Your task to perform on an android device: open app "Google Play Games" Image 0: 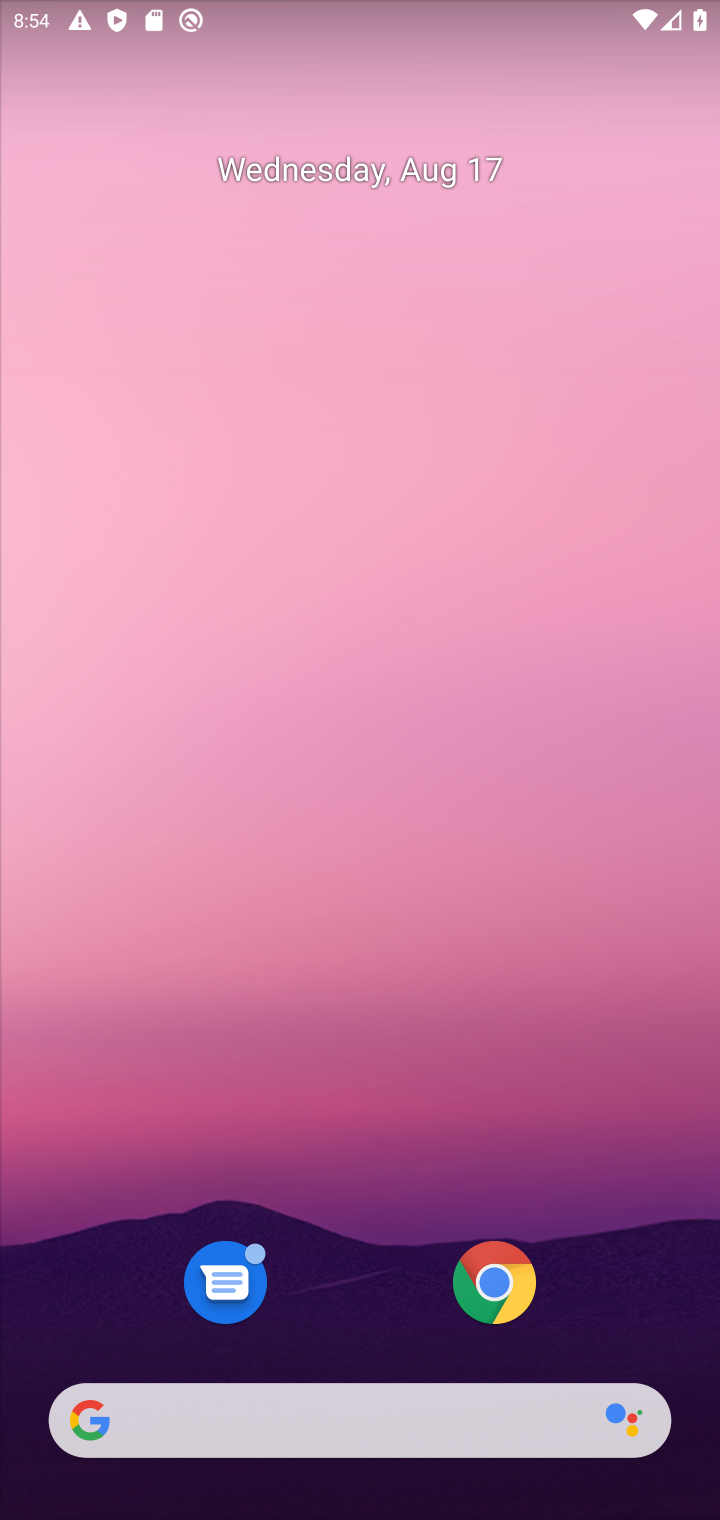
Step 0: drag from (257, 1088) to (586, 491)
Your task to perform on an android device: open app "Google Play Games" Image 1: 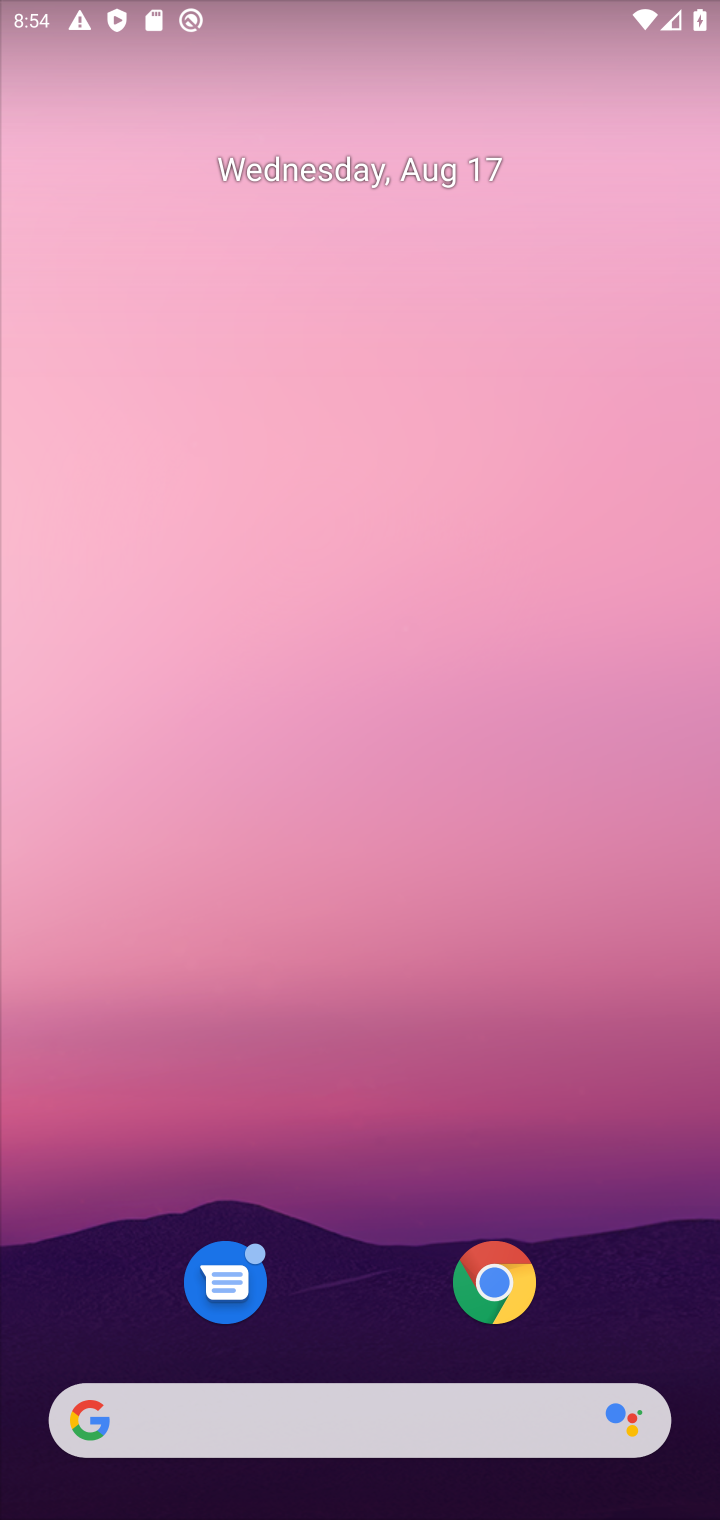
Step 1: drag from (394, 1356) to (218, 124)
Your task to perform on an android device: open app "Google Play Games" Image 2: 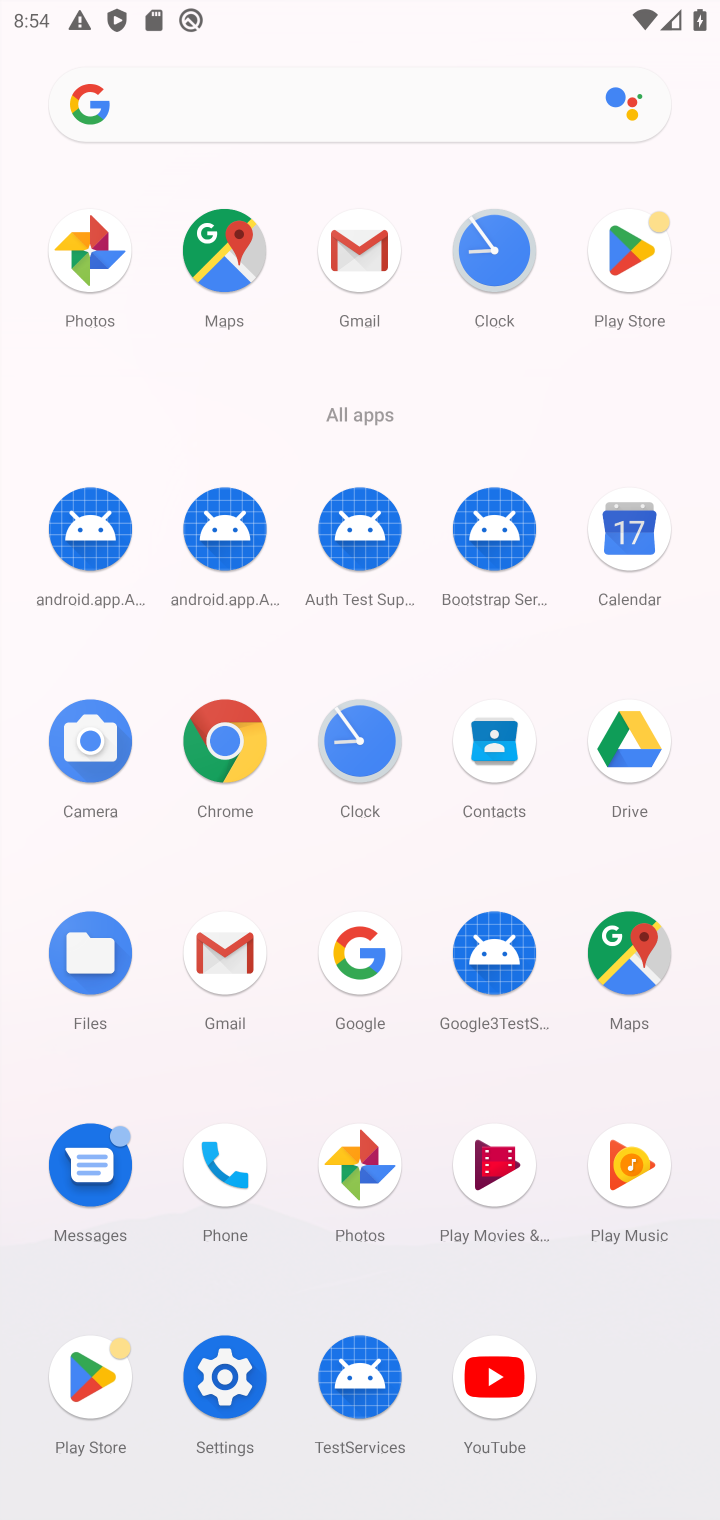
Step 2: click (68, 1403)
Your task to perform on an android device: open app "Google Play Games" Image 3: 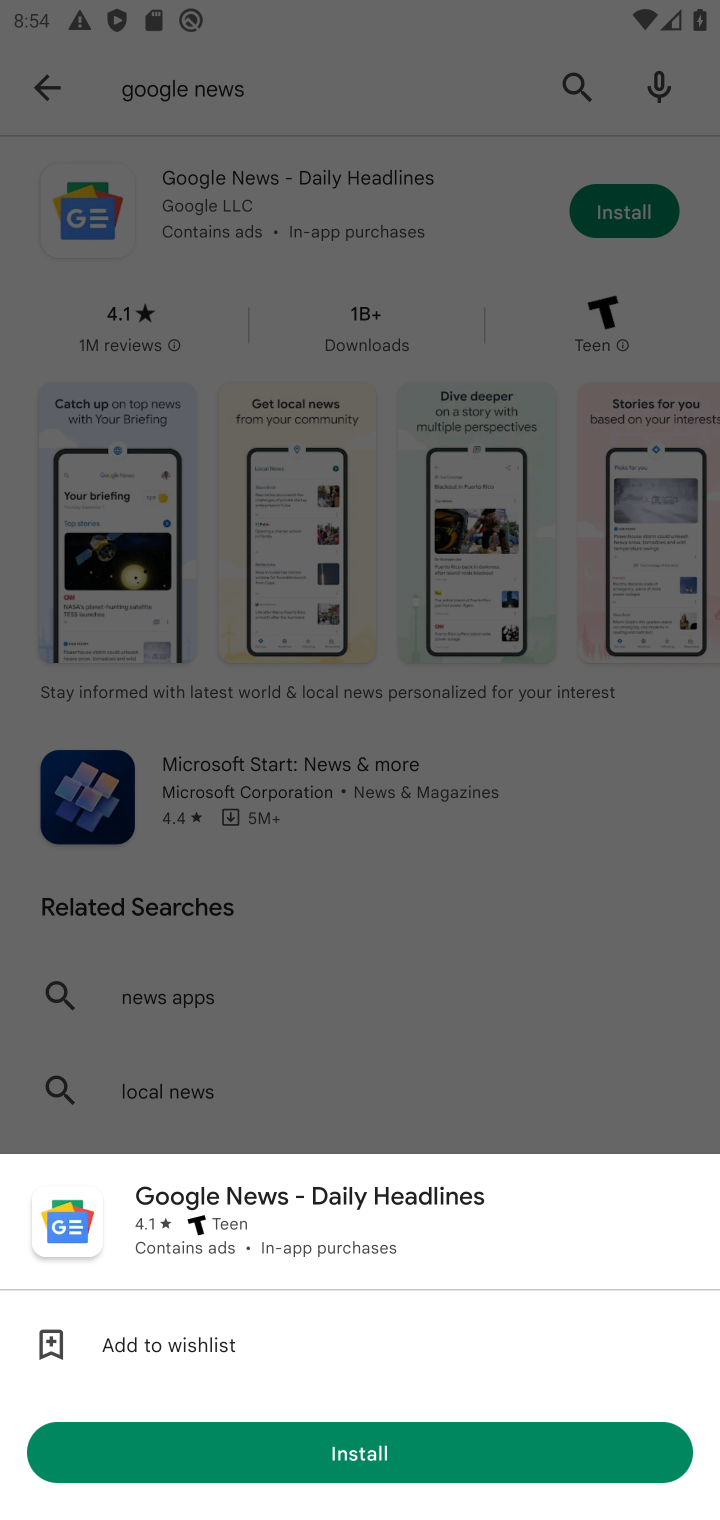
Step 3: click (408, 923)
Your task to perform on an android device: open app "Google Play Games" Image 4: 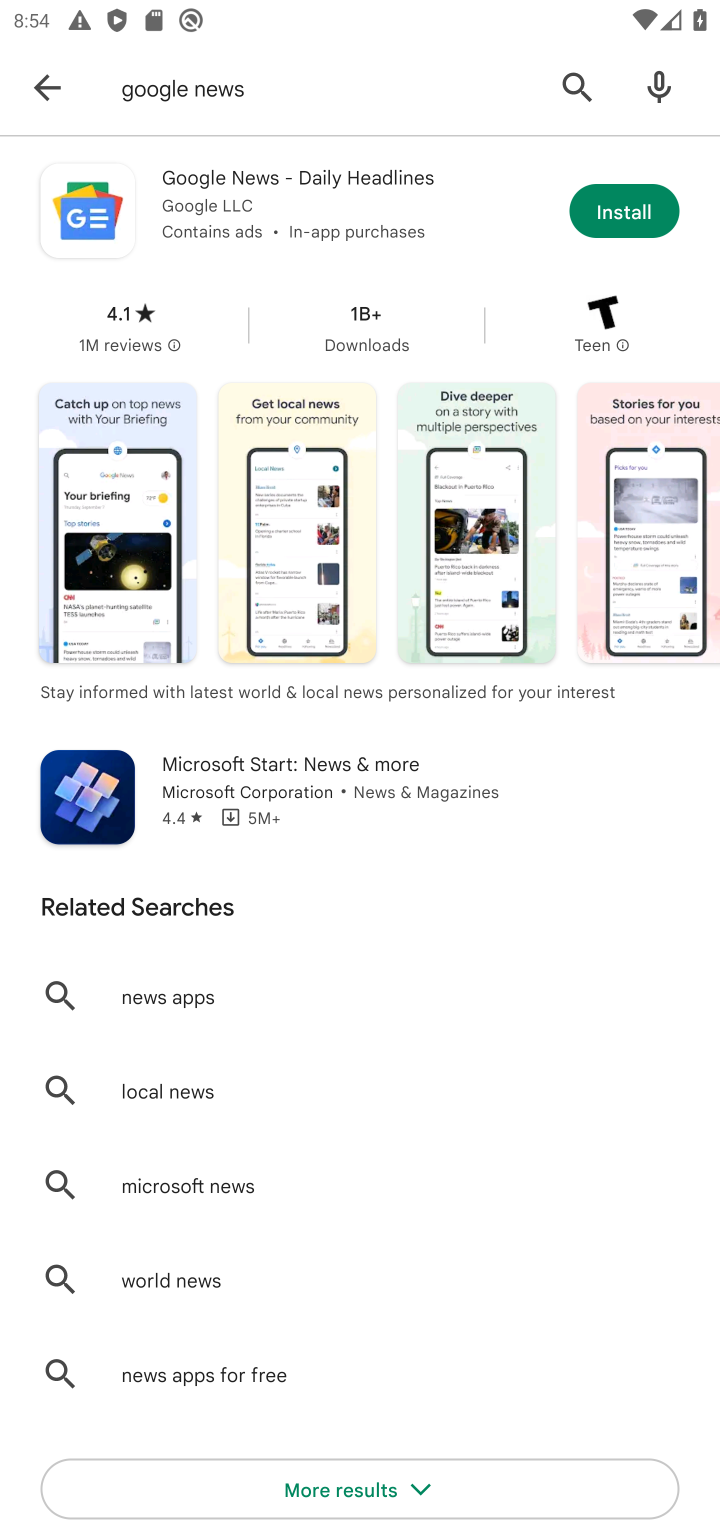
Step 4: click (49, 102)
Your task to perform on an android device: open app "Google Play Games" Image 5: 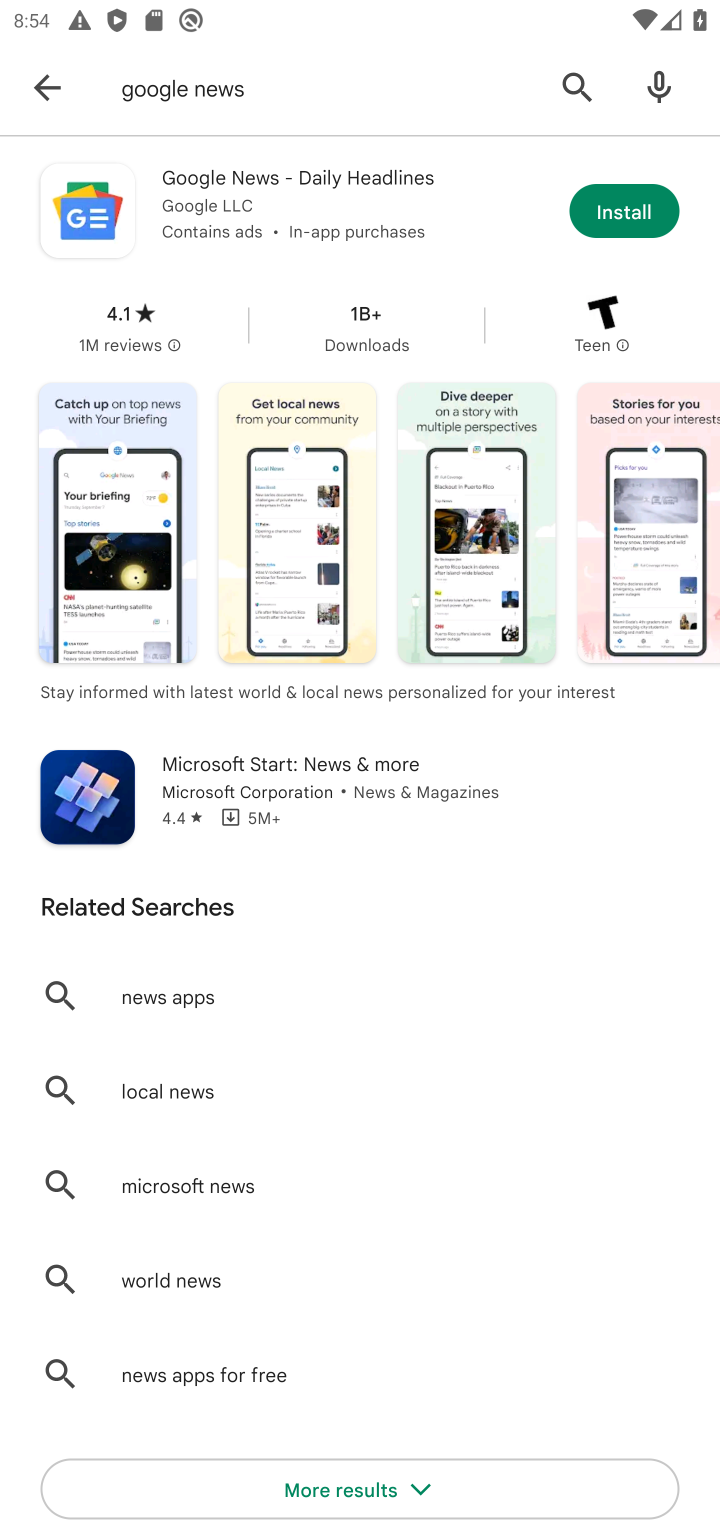
Step 5: click (58, 92)
Your task to perform on an android device: open app "Google Play Games" Image 6: 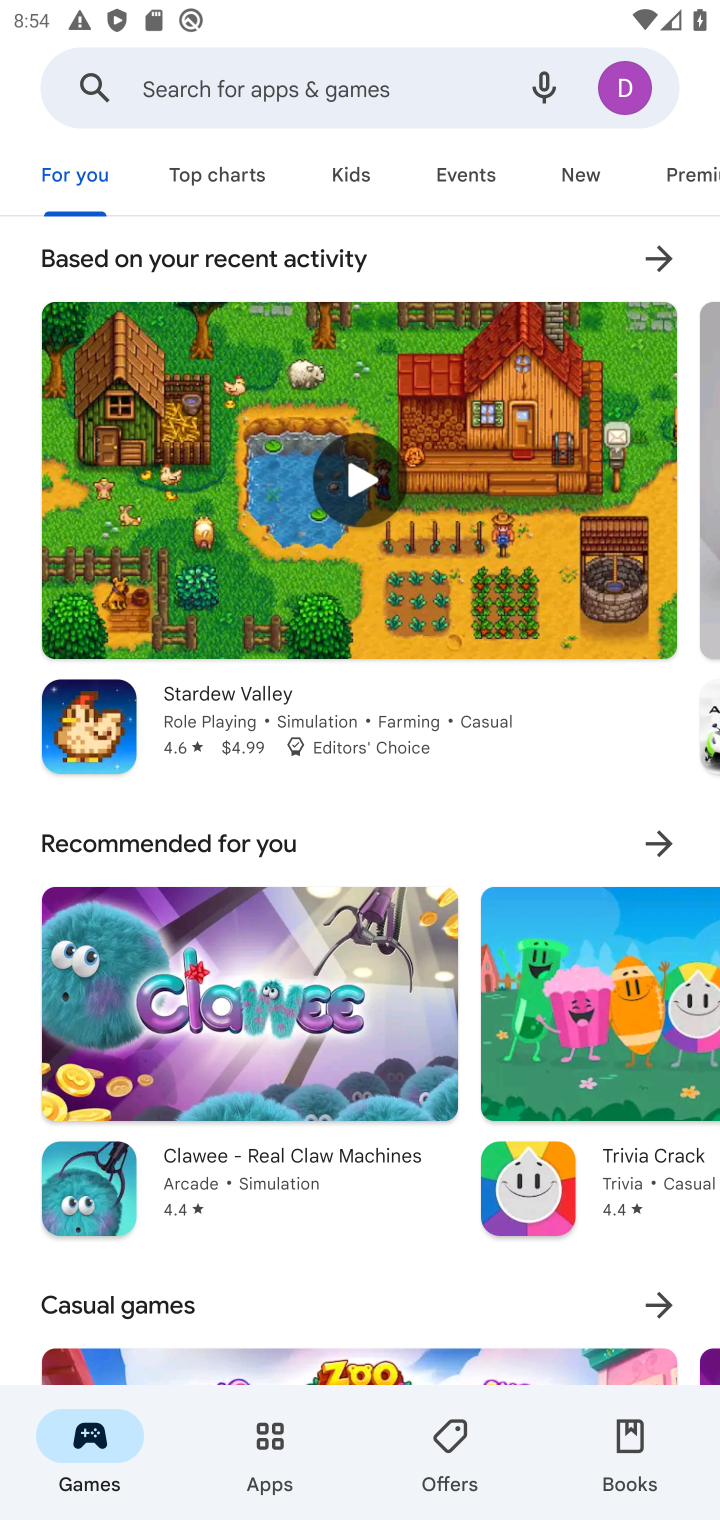
Step 6: click (175, 92)
Your task to perform on an android device: open app "Google Play Games" Image 7: 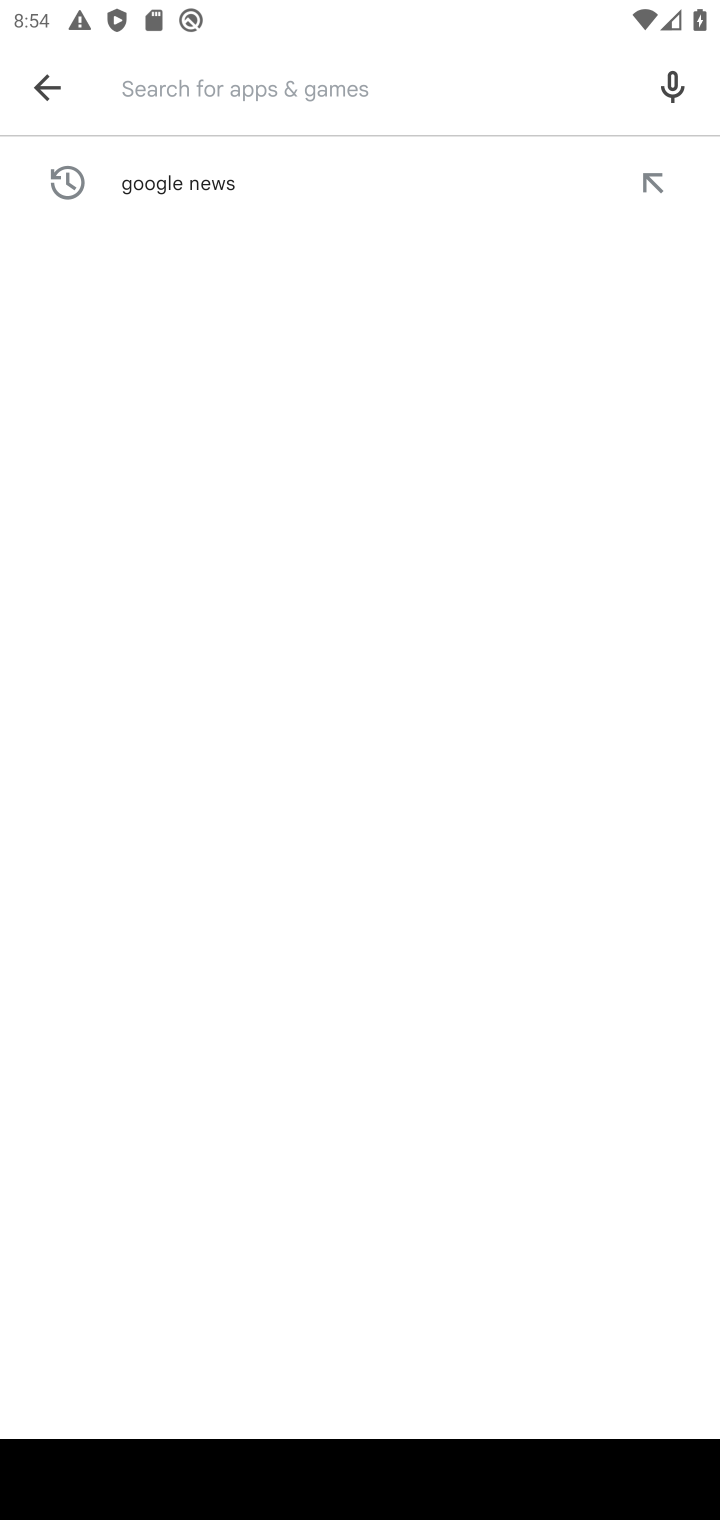
Step 7: type "Google Play Games"
Your task to perform on an android device: open app "Google Play Games" Image 8: 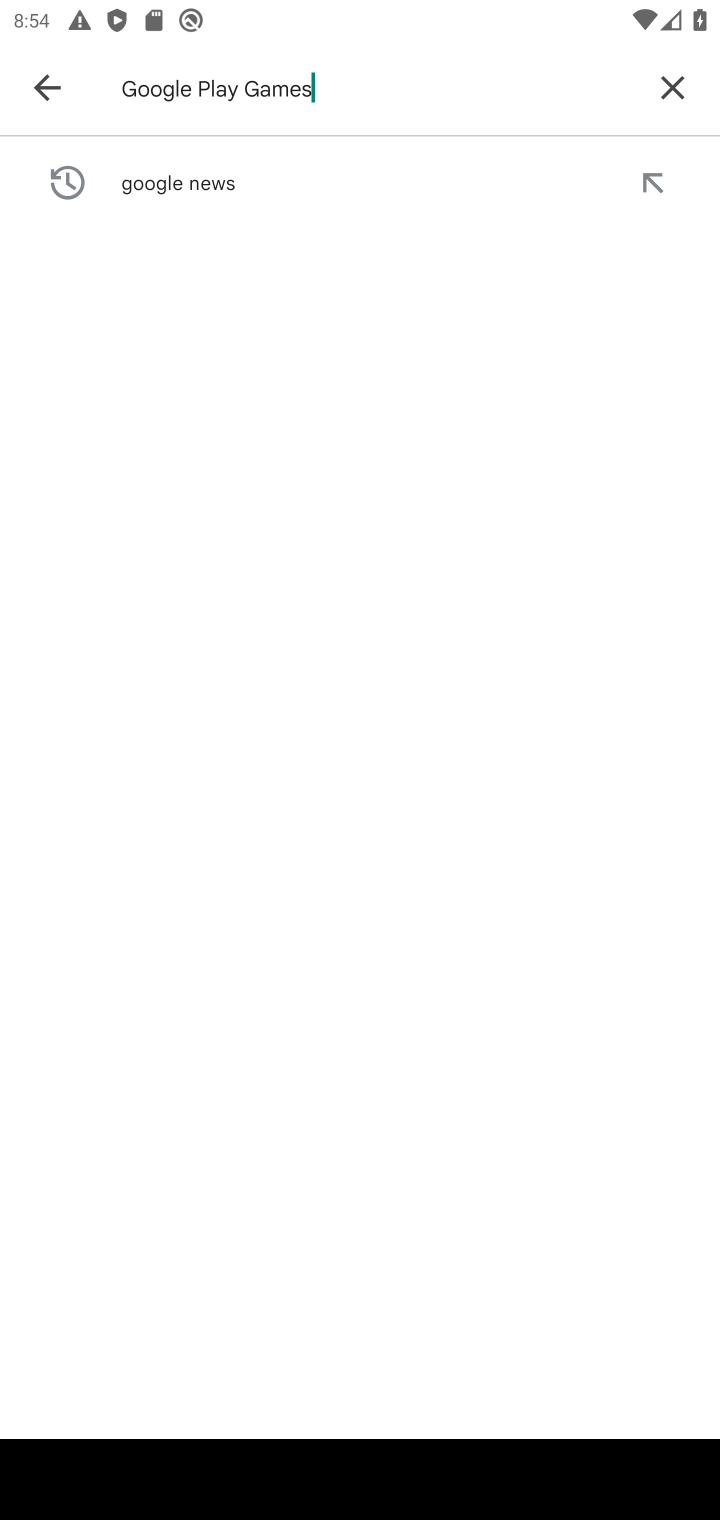
Step 8: type ""
Your task to perform on an android device: open app "Google Play Games" Image 9: 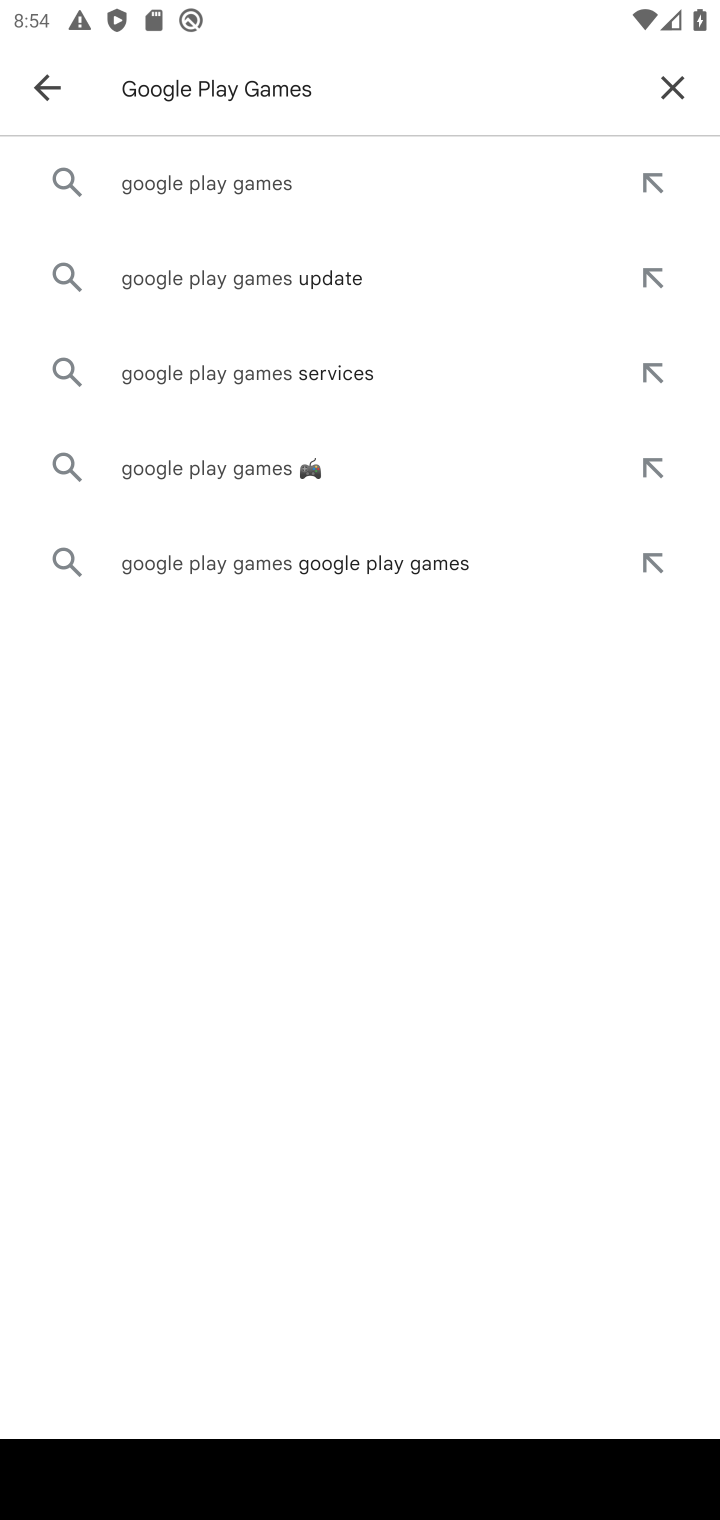
Step 9: click (165, 188)
Your task to perform on an android device: open app "Google Play Games" Image 10: 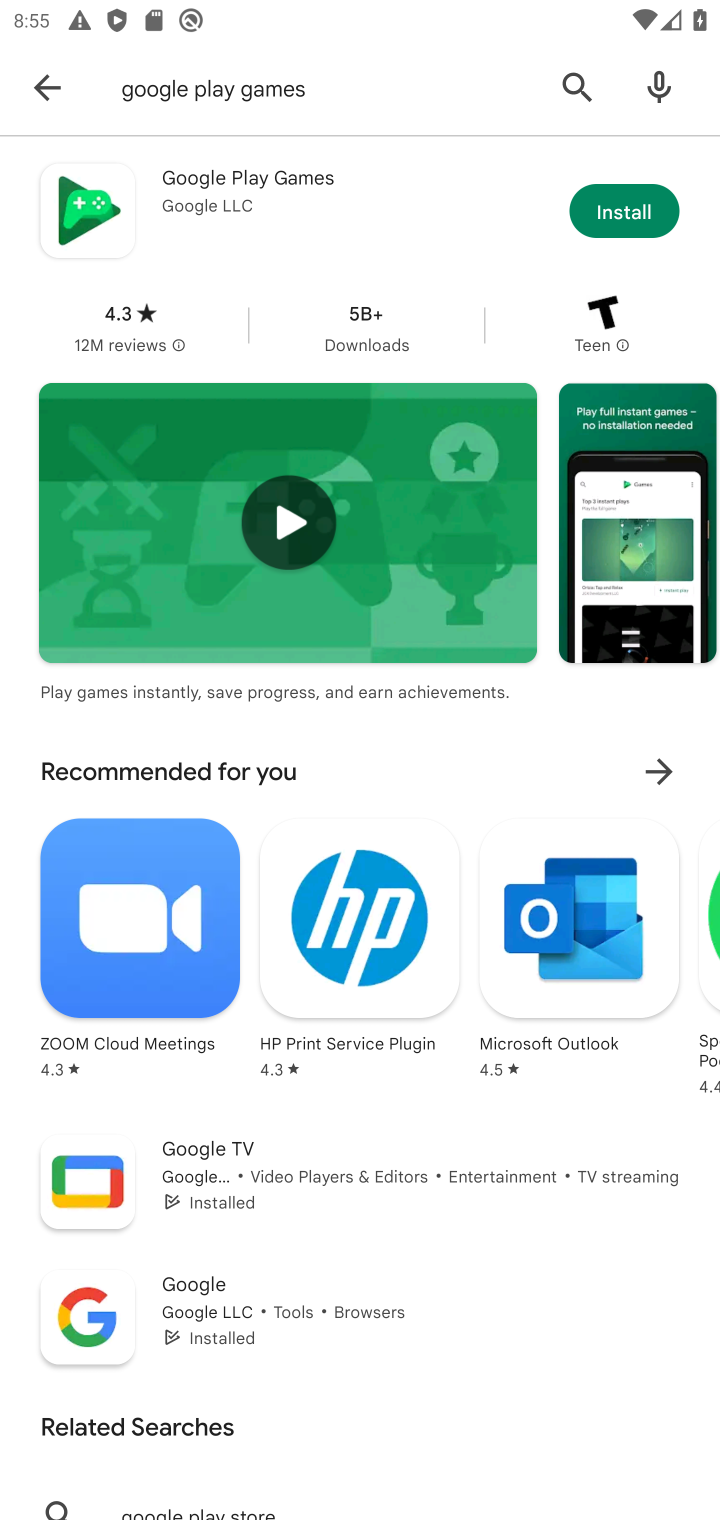
Step 10: task complete